Your task to perform on an android device: set the timer Image 0: 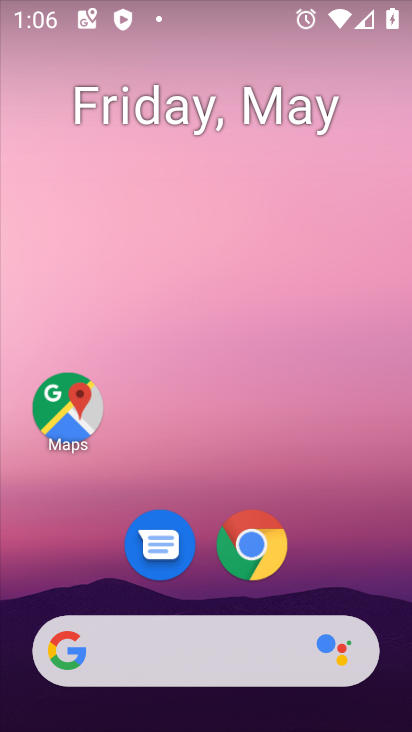
Step 0: drag from (343, 581) to (294, 67)
Your task to perform on an android device: set the timer Image 1: 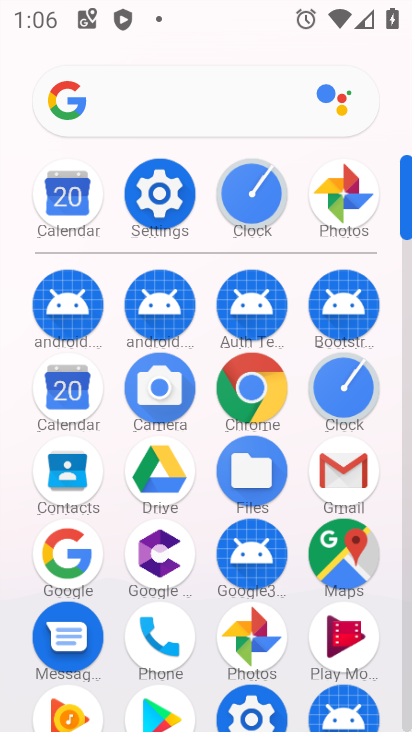
Step 1: click (241, 202)
Your task to perform on an android device: set the timer Image 2: 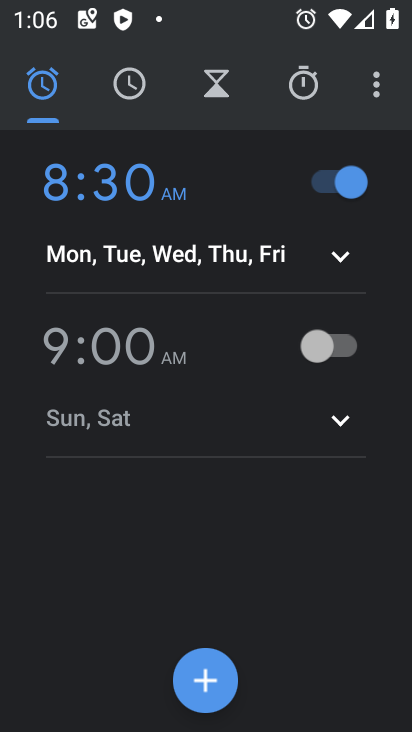
Step 2: click (220, 81)
Your task to perform on an android device: set the timer Image 3: 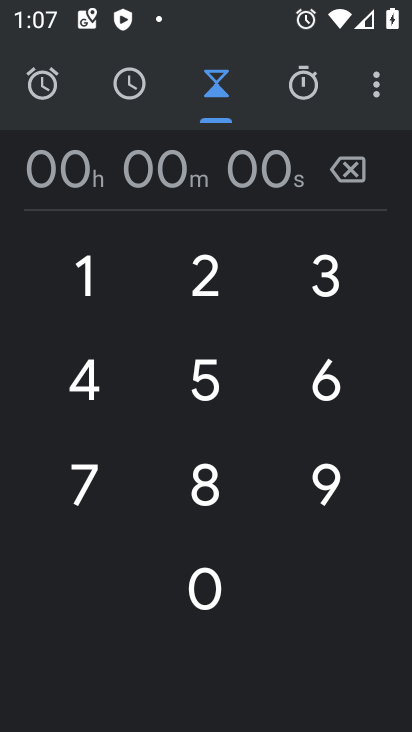
Step 3: click (99, 268)
Your task to perform on an android device: set the timer Image 4: 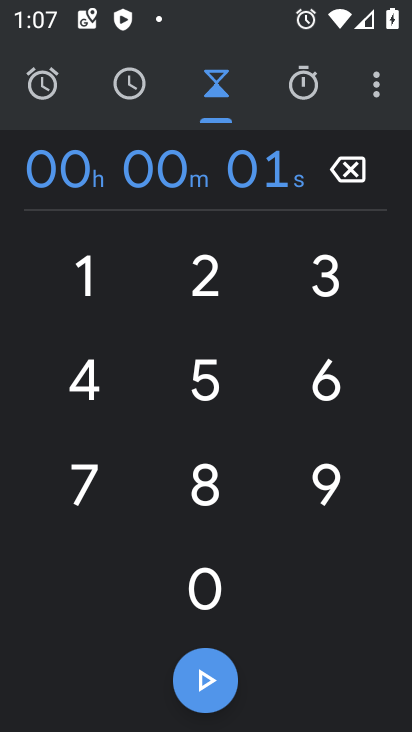
Step 4: click (197, 365)
Your task to perform on an android device: set the timer Image 5: 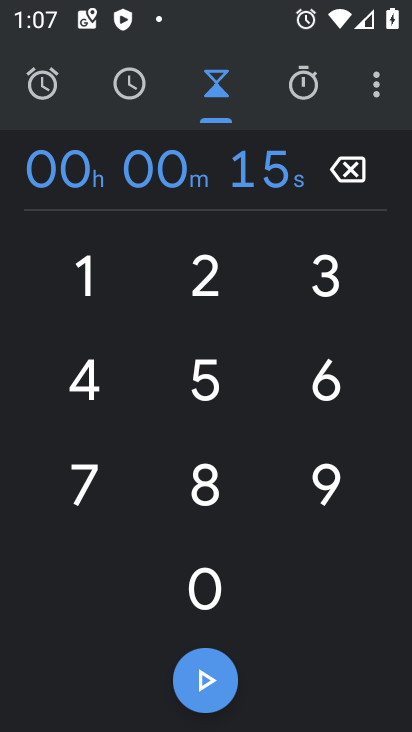
Step 5: click (210, 272)
Your task to perform on an android device: set the timer Image 6: 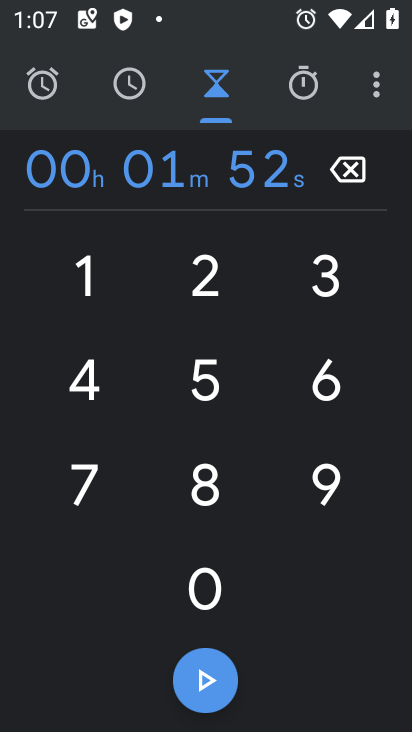
Step 6: click (350, 279)
Your task to perform on an android device: set the timer Image 7: 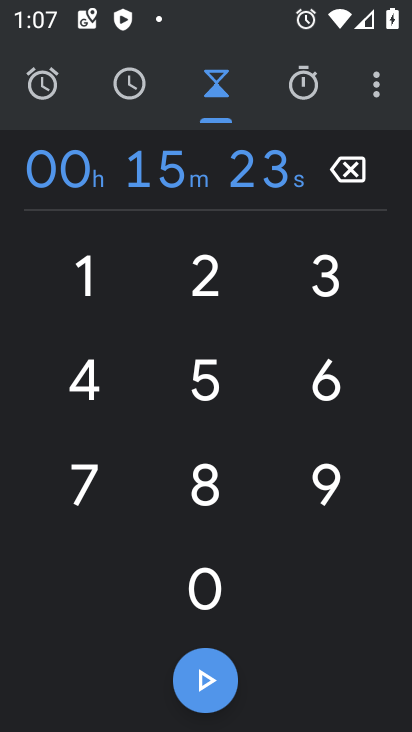
Step 7: click (207, 375)
Your task to perform on an android device: set the timer Image 8: 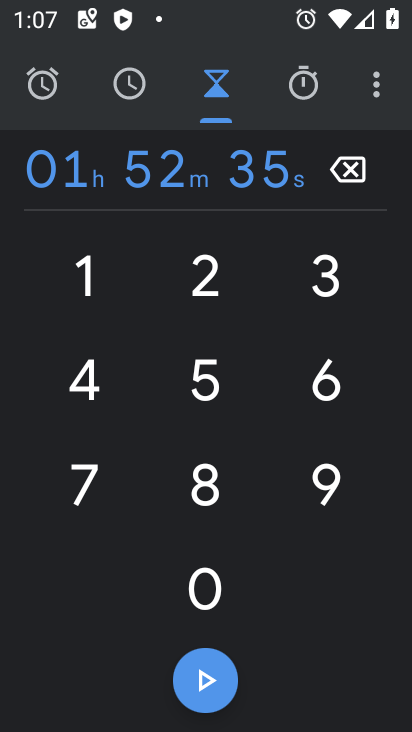
Step 8: click (201, 681)
Your task to perform on an android device: set the timer Image 9: 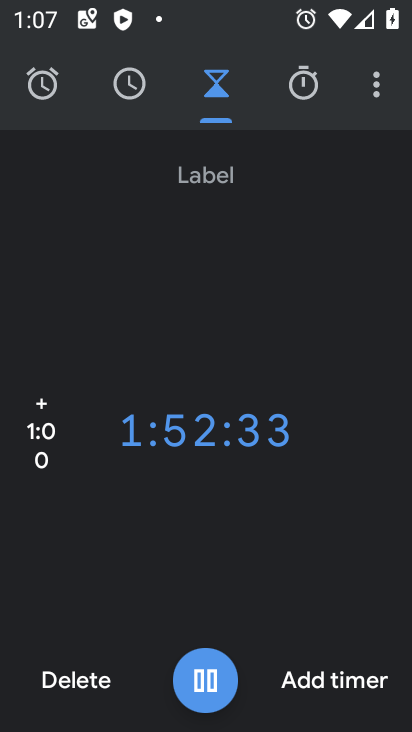
Step 9: task complete